Your task to perform on an android device: empty trash in the gmail app Image 0: 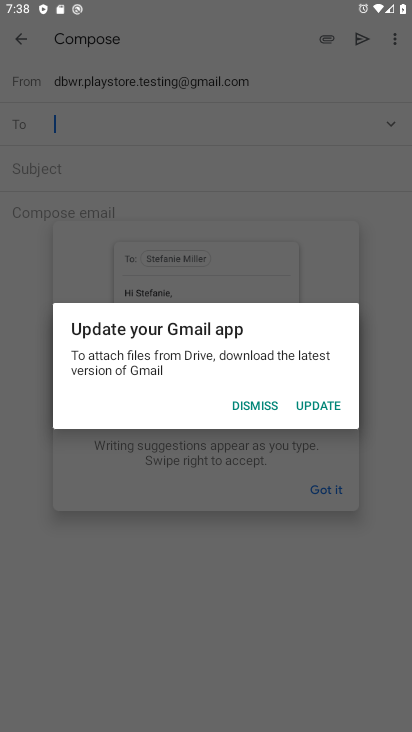
Step 0: press home button
Your task to perform on an android device: empty trash in the gmail app Image 1: 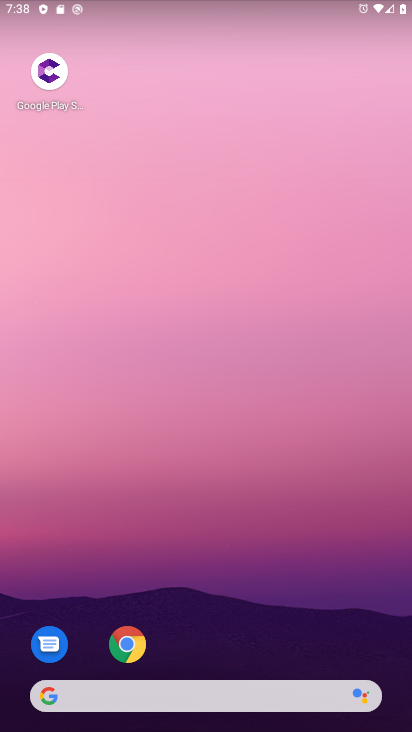
Step 1: drag from (163, 677) to (224, 315)
Your task to perform on an android device: empty trash in the gmail app Image 2: 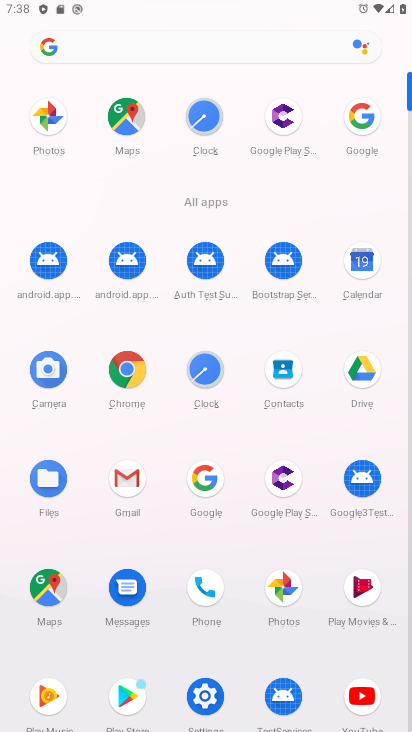
Step 2: click (120, 473)
Your task to perform on an android device: empty trash in the gmail app Image 3: 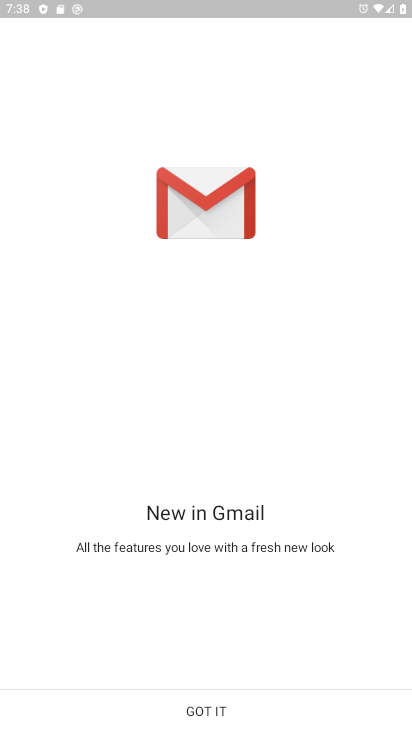
Step 3: click (225, 701)
Your task to perform on an android device: empty trash in the gmail app Image 4: 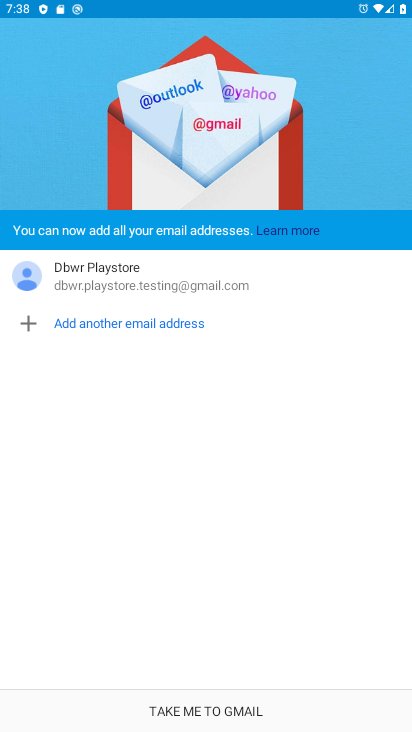
Step 4: click (193, 713)
Your task to perform on an android device: empty trash in the gmail app Image 5: 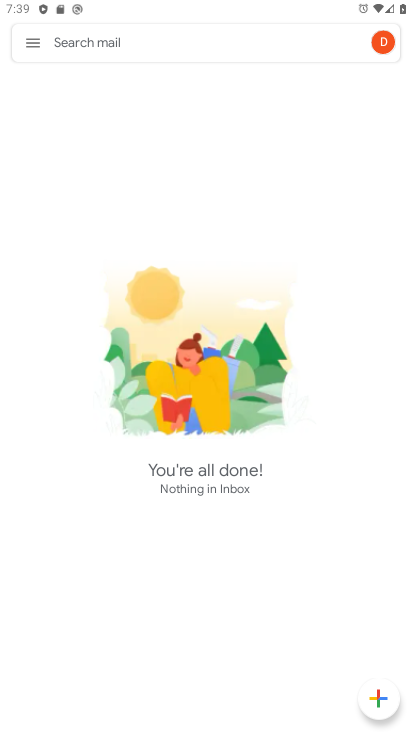
Step 5: click (37, 41)
Your task to perform on an android device: empty trash in the gmail app Image 6: 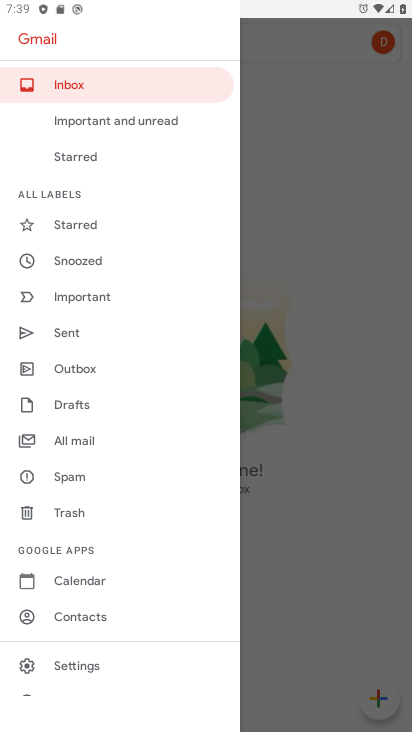
Step 6: click (79, 510)
Your task to perform on an android device: empty trash in the gmail app Image 7: 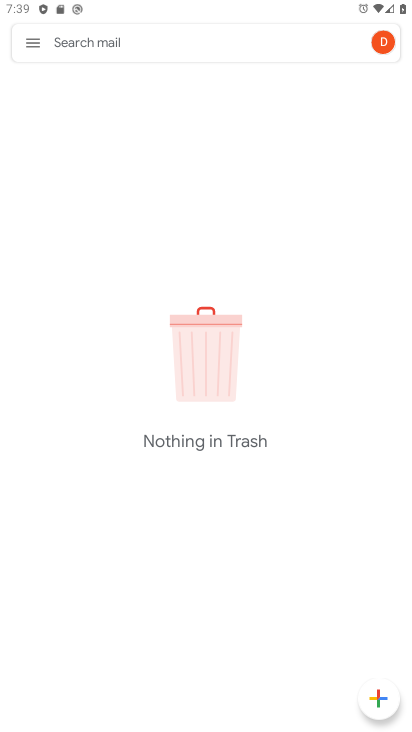
Step 7: task complete